Your task to perform on an android device: What's the weather going to be tomorrow? Image 0: 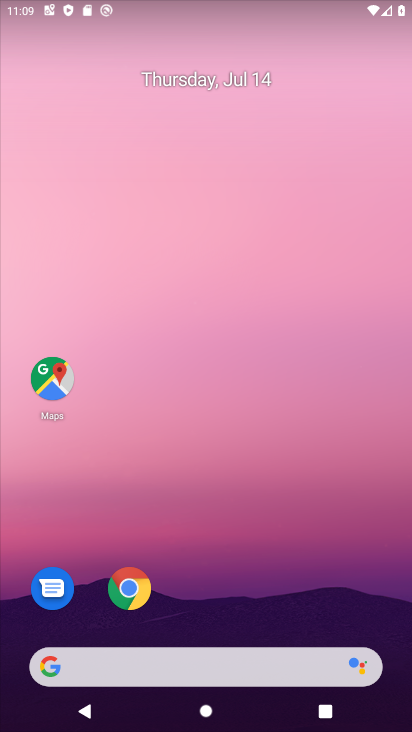
Step 0: drag from (18, 201) to (375, 139)
Your task to perform on an android device: What's the weather going to be tomorrow? Image 1: 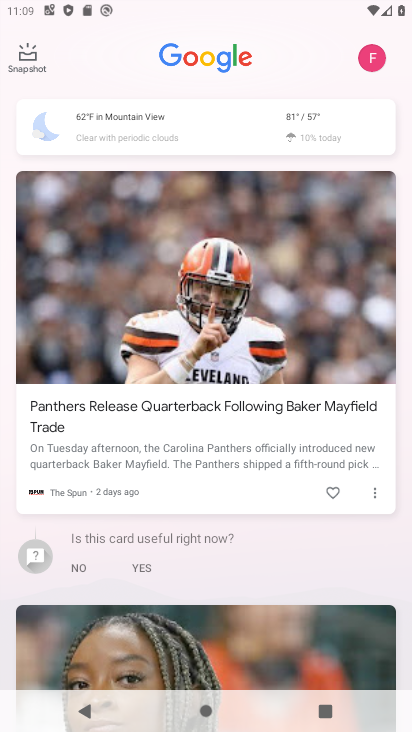
Step 1: click (297, 112)
Your task to perform on an android device: What's the weather going to be tomorrow? Image 2: 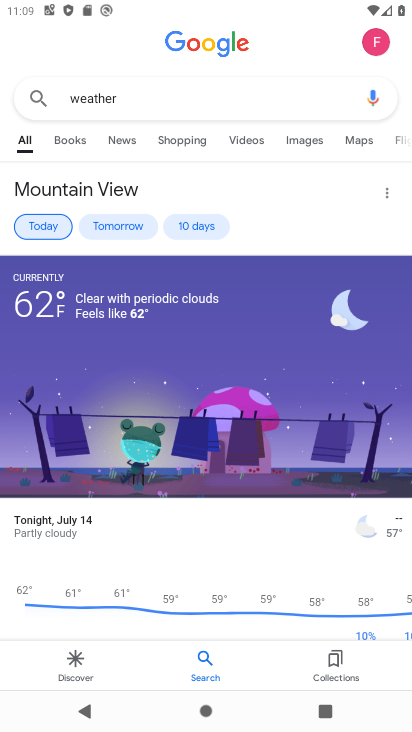
Step 2: click (115, 226)
Your task to perform on an android device: What's the weather going to be tomorrow? Image 3: 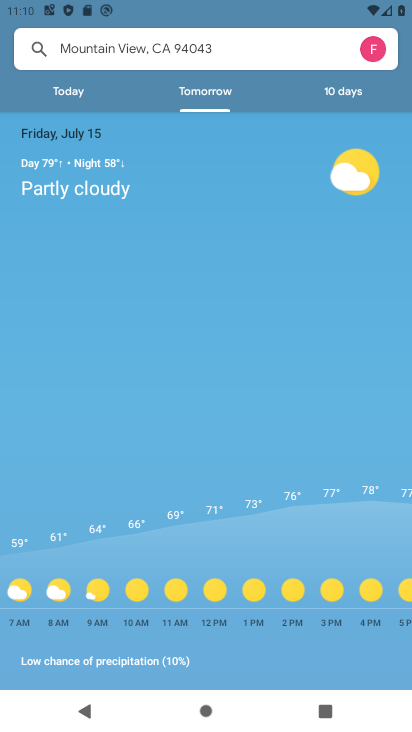
Step 3: task complete